Your task to perform on an android device: see tabs open on other devices in the chrome app Image 0: 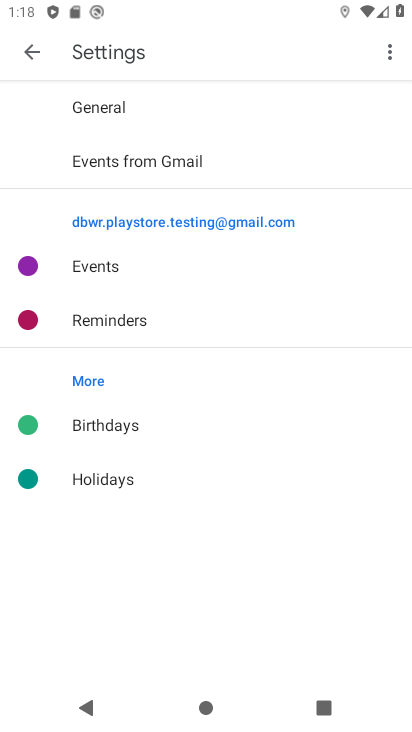
Step 0: press home button
Your task to perform on an android device: see tabs open on other devices in the chrome app Image 1: 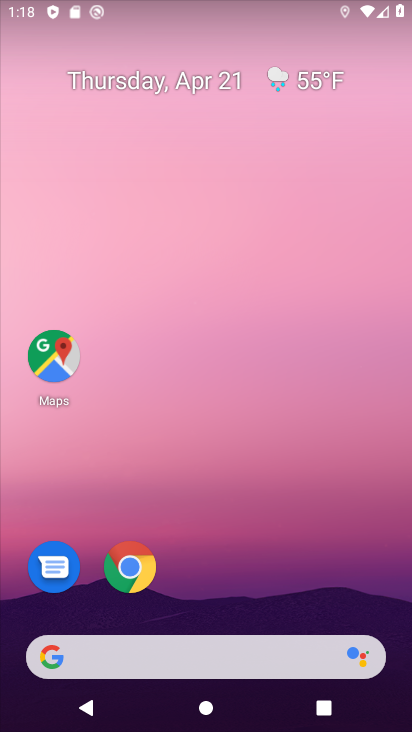
Step 1: click (128, 562)
Your task to perform on an android device: see tabs open on other devices in the chrome app Image 2: 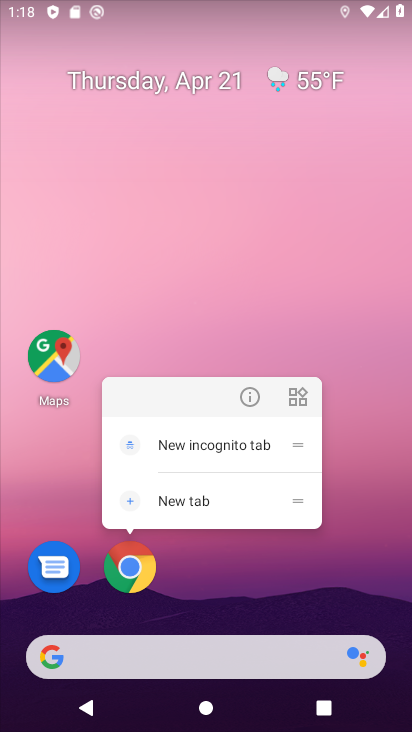
Step 2: click (128, 562)
Your task to perform on an android device: see tabs open on other devices in the chrome app Image 3: 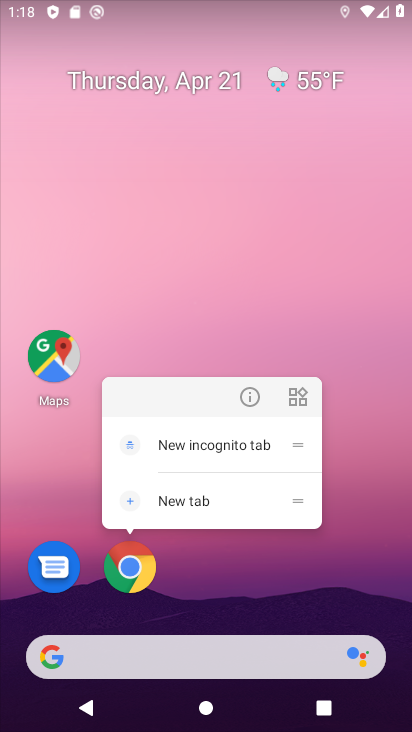
Step 3: click (129, 561)
Your task to perform on an android device: see tabs open on other devices in the chrome app Image 4: 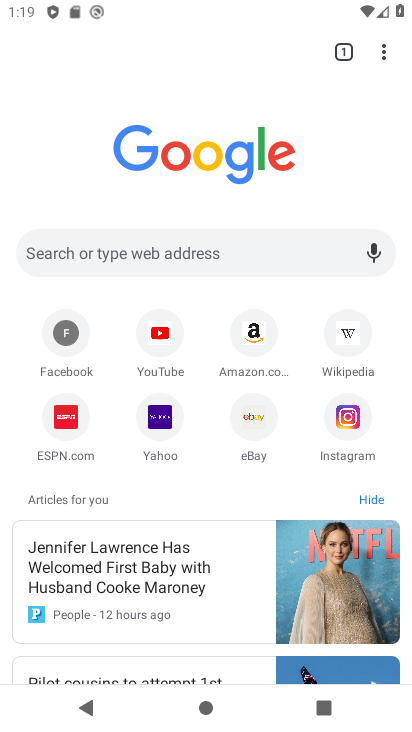
Step 4: click (379, 50)
Your task to perform on an android device: see tabs open on other devices in the chrome app Image 5: 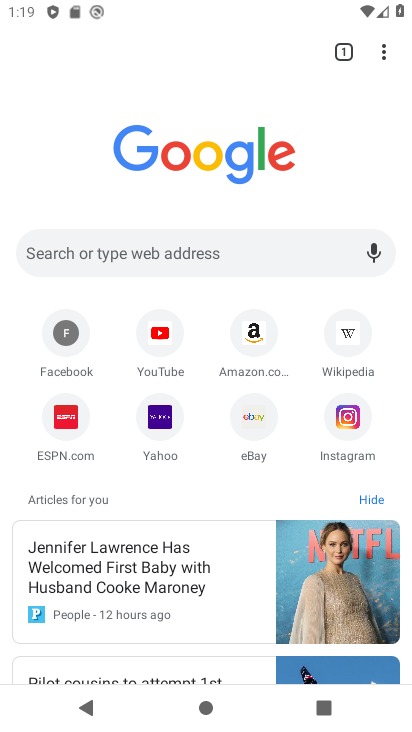
Step 5: click (384, 52)
Your task to perform on an android device: see tabs open on other devices in the chrome app Image 6: 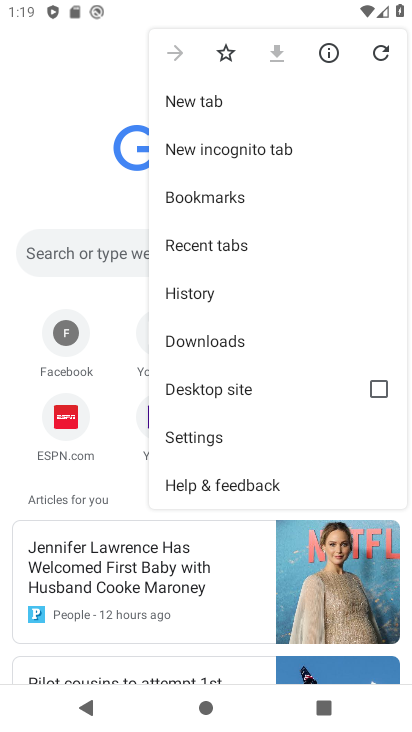
Step 6: click (256, 244)
Your task to perform on an android device: see tabs open on other devices in the chrome app Image 7: 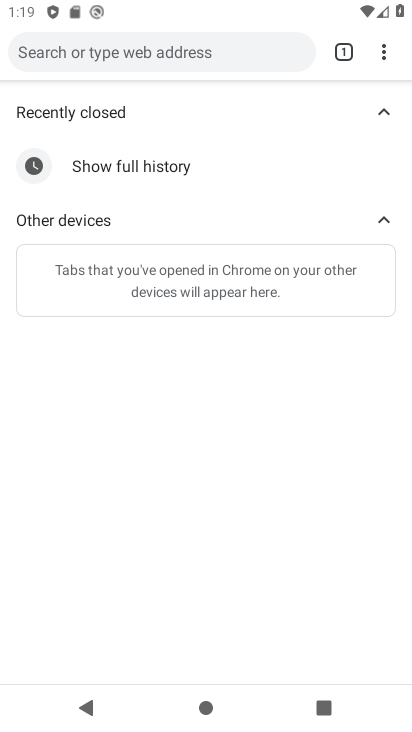
Step 7: task complete